Your task to perform on an android device: Go to Google maps Image 0: 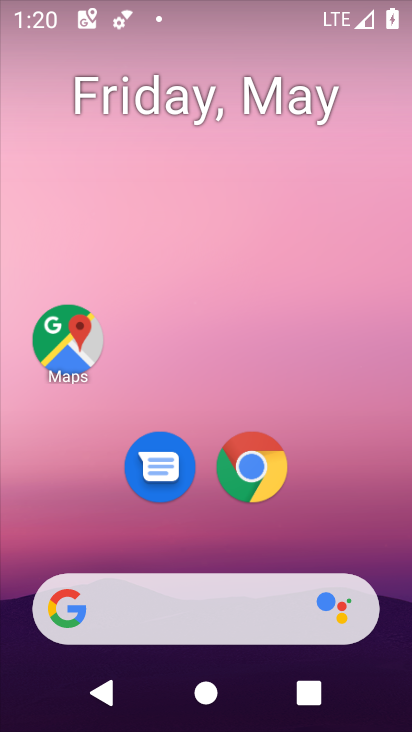
Step 0: drag from (348, 492) to (405, 0)
Your task to perform on an android device: Go to Google maps Image 1: 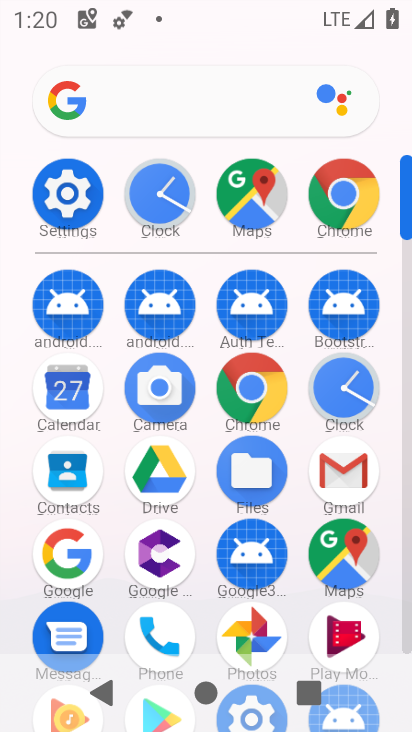
Step 1: drag from (395, 536) to (378, 230)
Your task to perform on an android device: Go to Google maps Image 2: 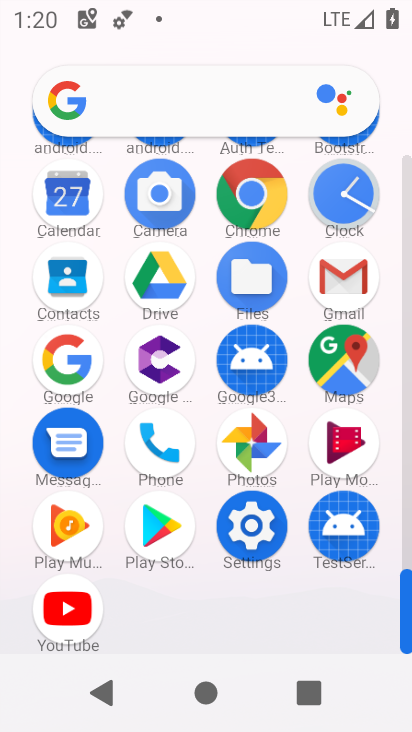
Step 2: click (360, 360)
Your task to perform on an android device: Go to Google maps Image 3: 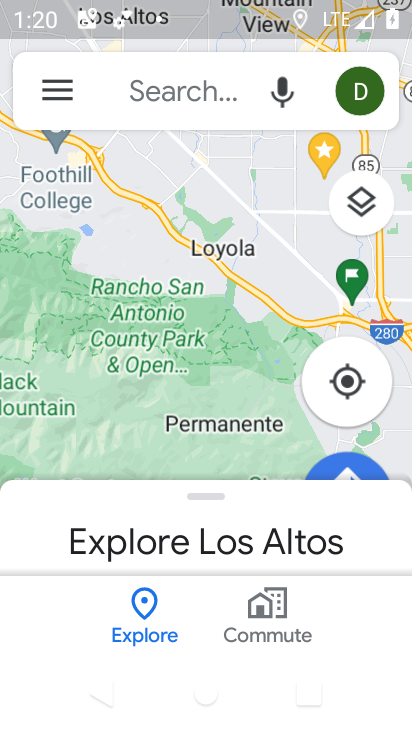
Step 3: task complete